Your task to perform on an android device: Set the phone to "Do not disturb". Image 0: 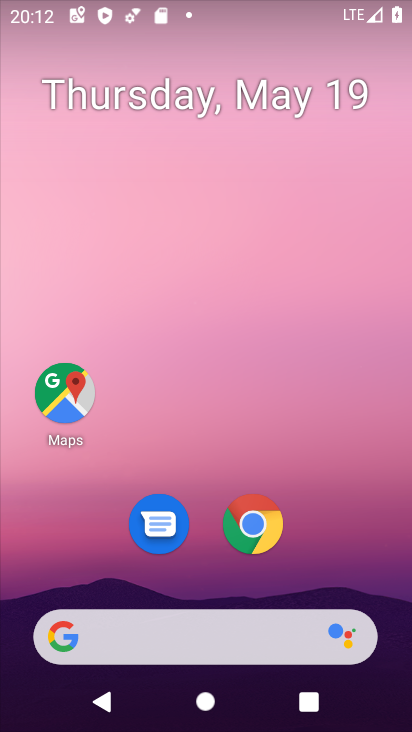
Step 0: drag from (332, 529) to (343, 50)
Your task to perform on an android device: Set the phone to "Do not disturb". Image 1: 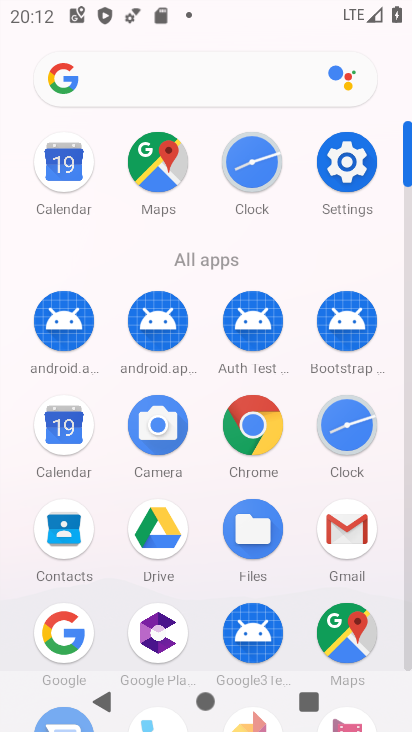
Step 1: click (347, 157)
Your task to perform on an android device: Set the phone to "Do not disturb". Image 2: 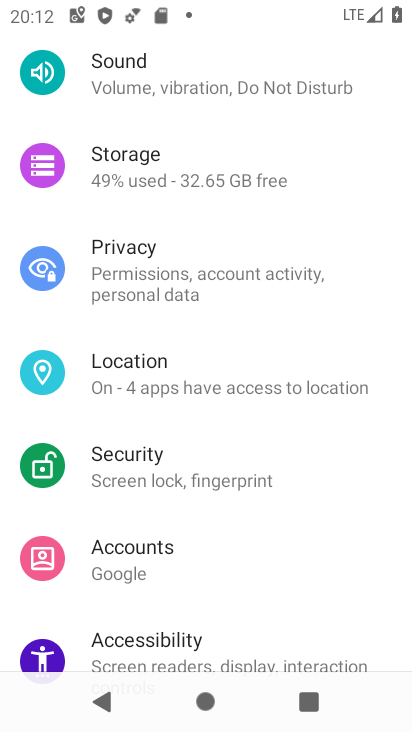
Step 2: click (233, 77)
Your task to perform on an android device: Set the phone to "Do not disturb". Image 3: 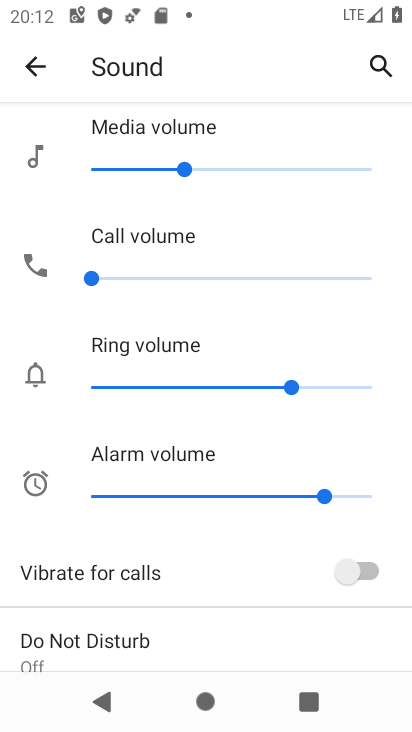
Step 3: click (148, 641)
Your task to perform on an android device: Set the phone to "Do not disturb". Image 4: 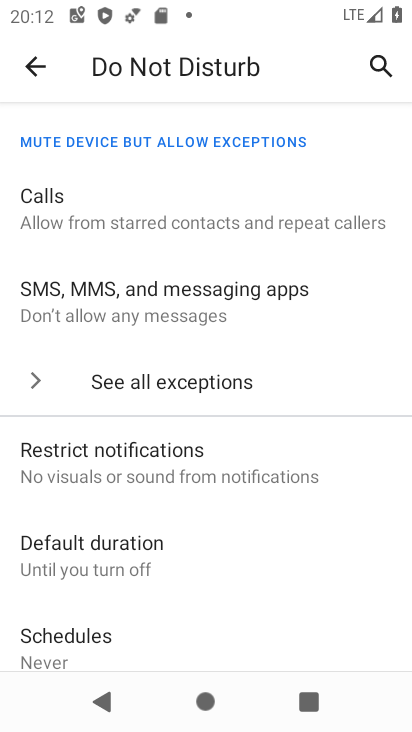
Step 4: drag from (197, 564) to (270, 279)
Your task to perform on an android device: Set the phone to "Do not disturb". Image 5: 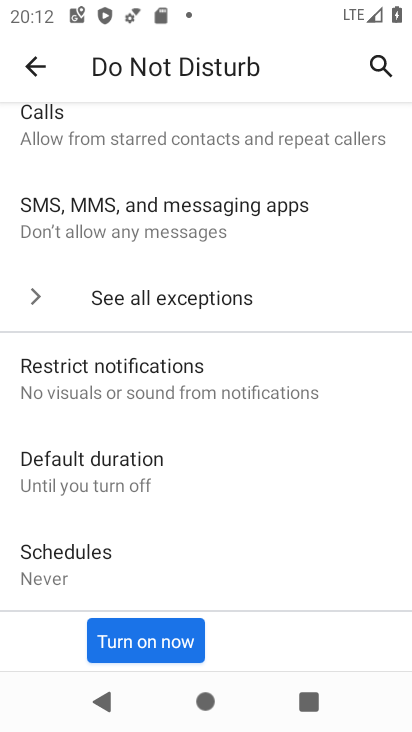
Step 5: click (156, 634)
Your task to perform on an android device: Set the phone to "Do not disturb". Image 6: 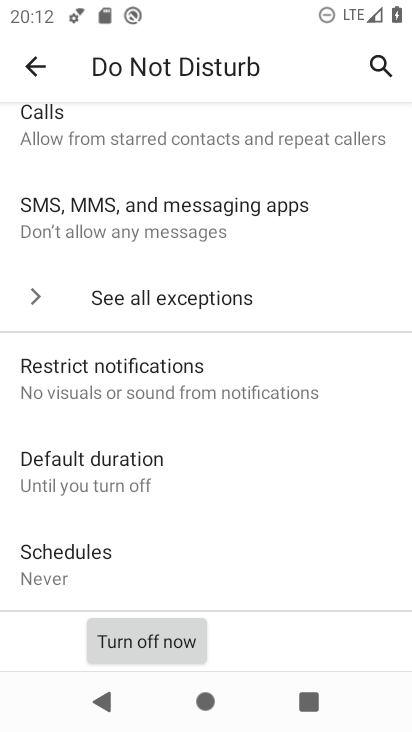
Step 6: task complete